Your task to perform on an android device: Open Google Maps Image 0: 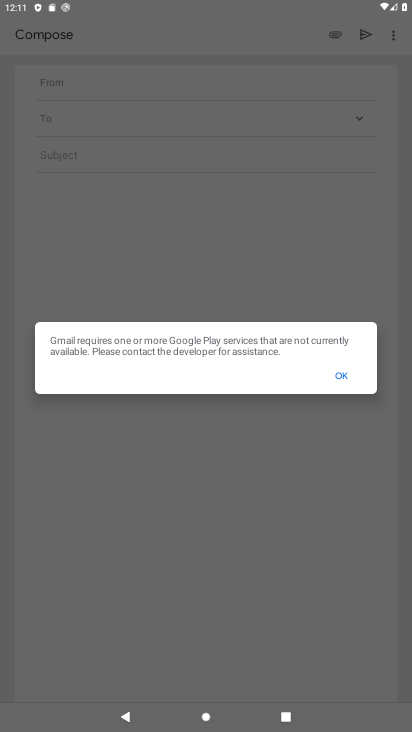
Step 0: press home button
Your task to perform on an android device: Open Google Maps Image 1: 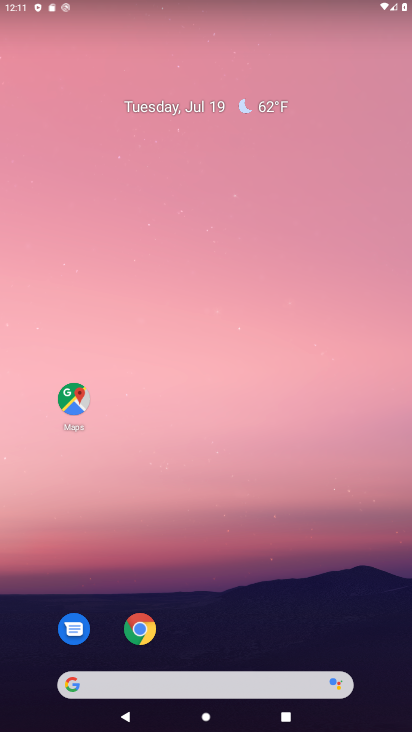
Step 1: click (76, 395)
Your task to perform on an android device: Open Google Maps Image 2: 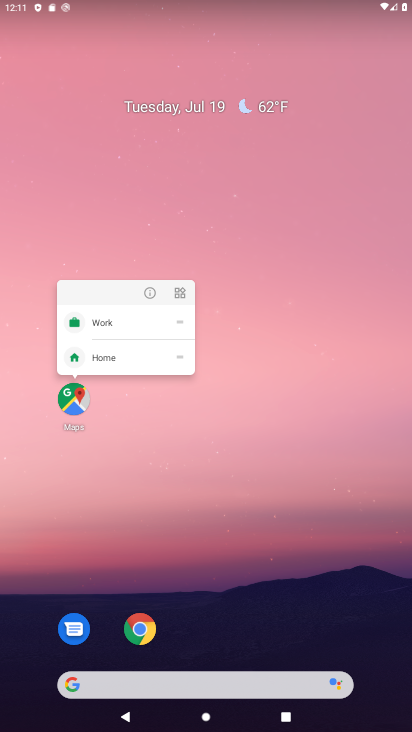
Step 2: click (76, 404)
Your task to perform on an android device: Open Google Maps Image 3: 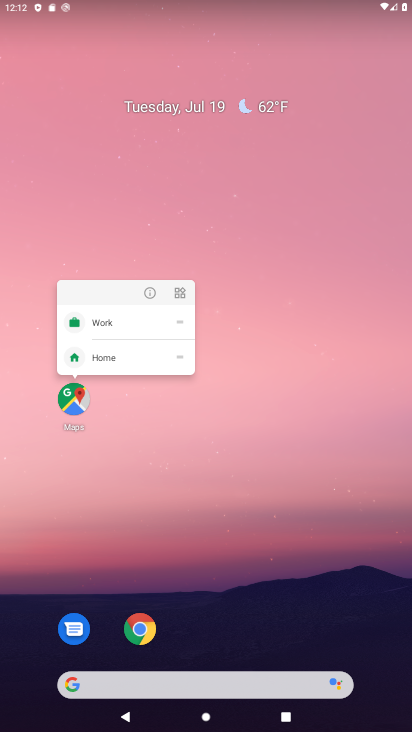
Step 3: click (76, 427)
Your task to perform on an android device: Open Google Maps Image 4: 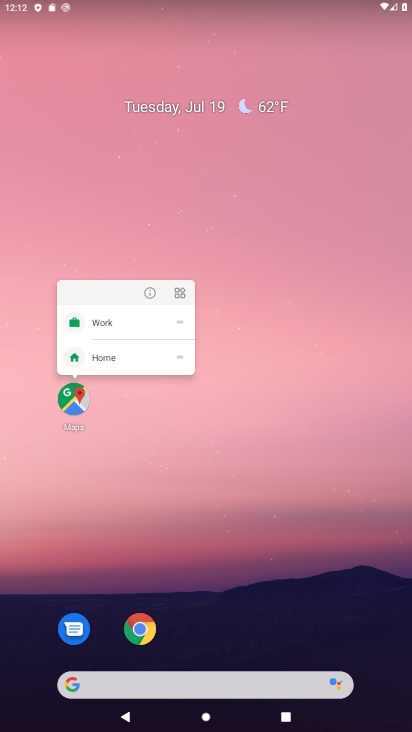
Step 4: click (73, 411)
Your task to perform on an android device: Open Google Maps Image 5: 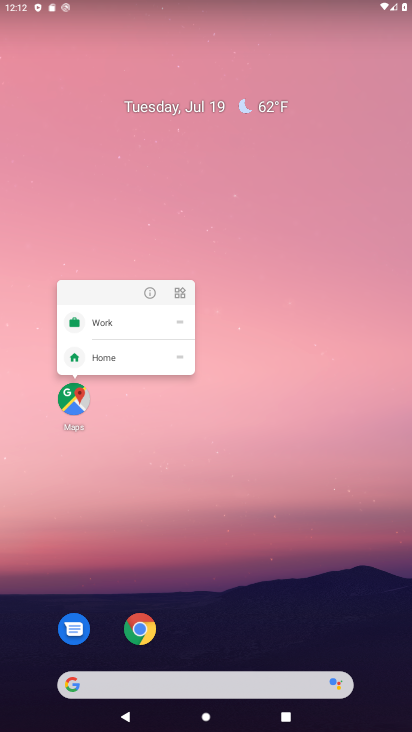
Step 5: click (60, 386)
Your task to perform on an android device: Open Google Maps Image 6: 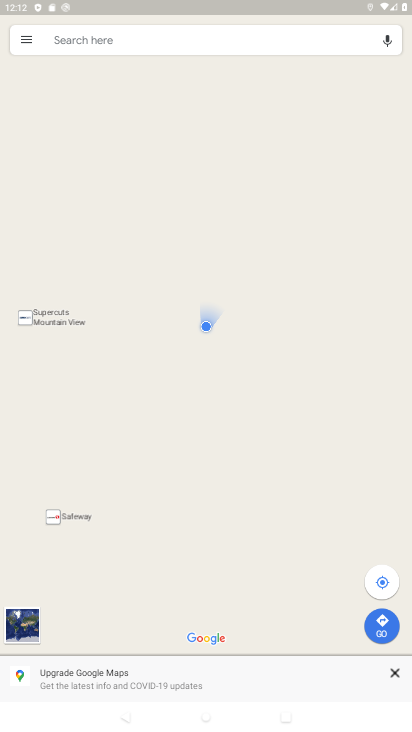
Step 6: click (396, 670)
Your task to perform on an android device: Open Google Maps Image 7: 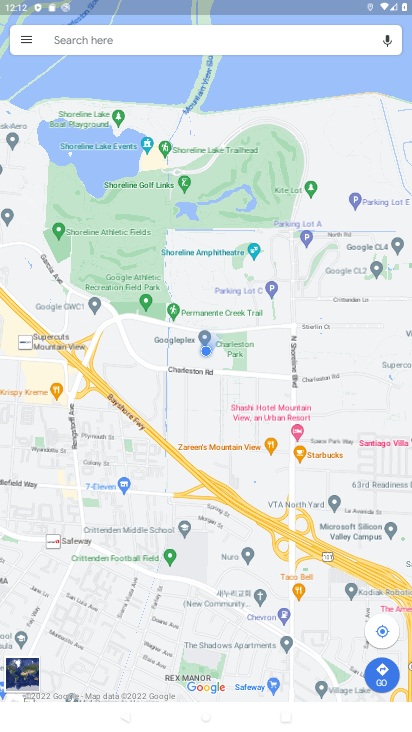
Step 7: task complete